Your task to perform on an android device: Go to CNN.com Image 0: 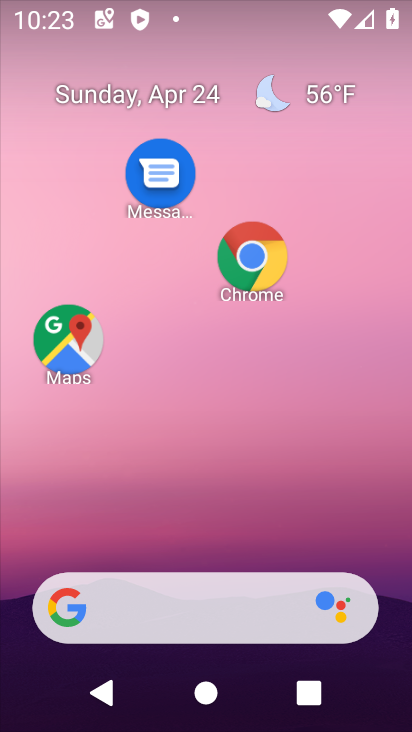
Step 0: click (255, 258)
Your task to perform on an android device: Go to CNN.com Image 1: 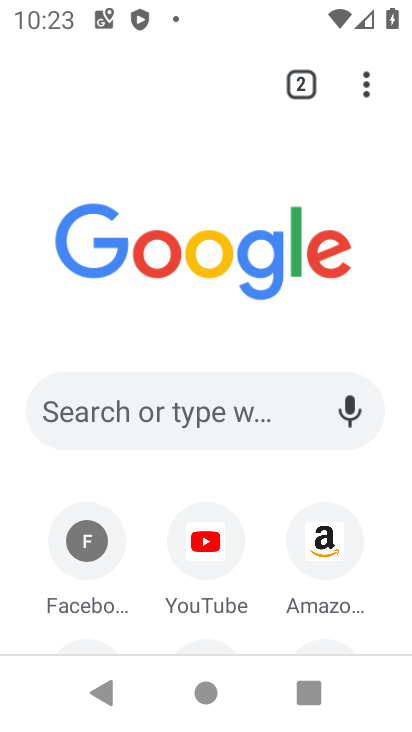
Step 1: click (206, 421)
Your task to perform on an android device: Go to CNN.com Image 2: 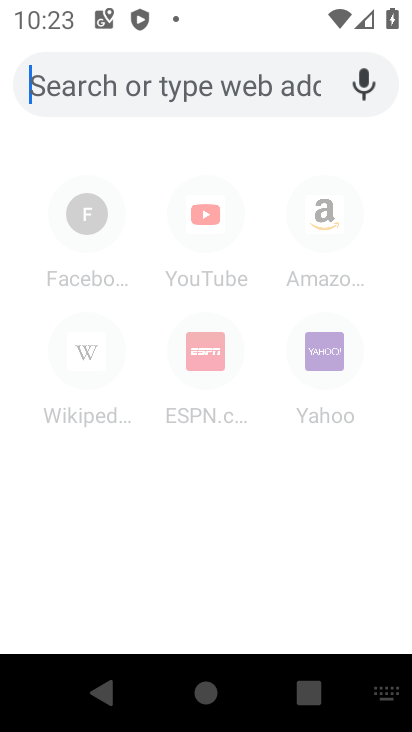
Step 2: type "CNN.com"
Your task to perform on an android device: Go to CNN.com Image 3: 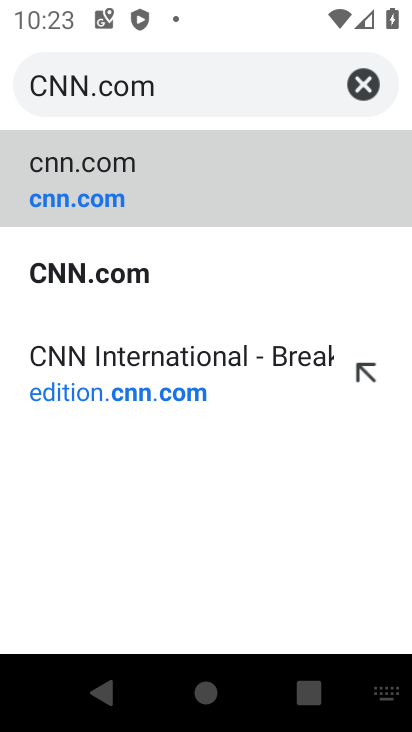
Step 3: click (89, 203)
Your task to perform on an android device: Go to CNN.com Image 4: 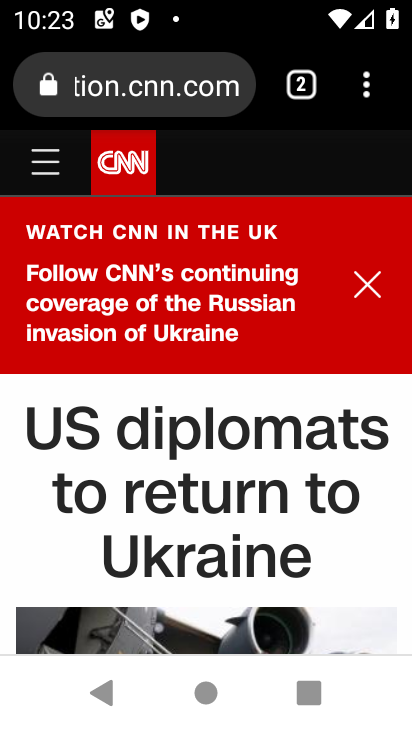
Step 4: task complete